Your task to perform on an android device: Open Maps and search for coffee Image 0: 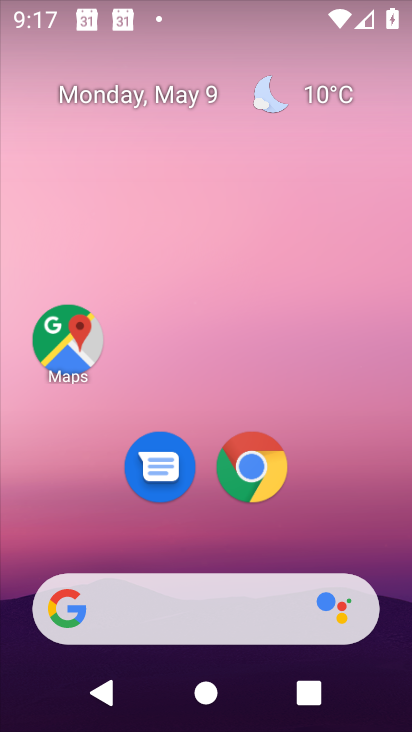
Step 0: click (65, 347)
Your task to perform on an android device: Open Maps and search for coffee Image 1: 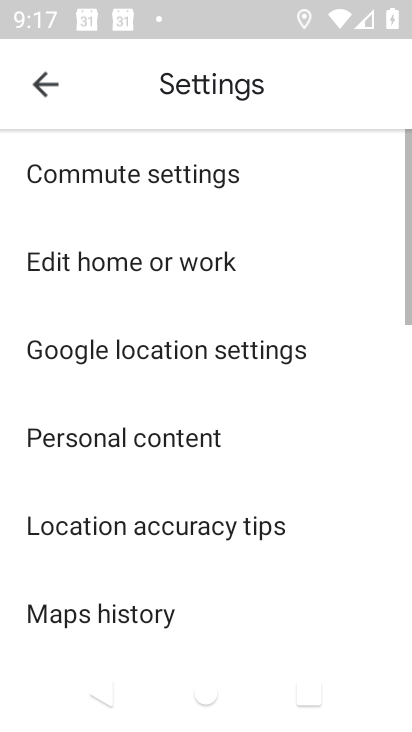
Step 1: click (55, 82)
Your task to perform on an android device: Open Maps and search for coffee Image 2: 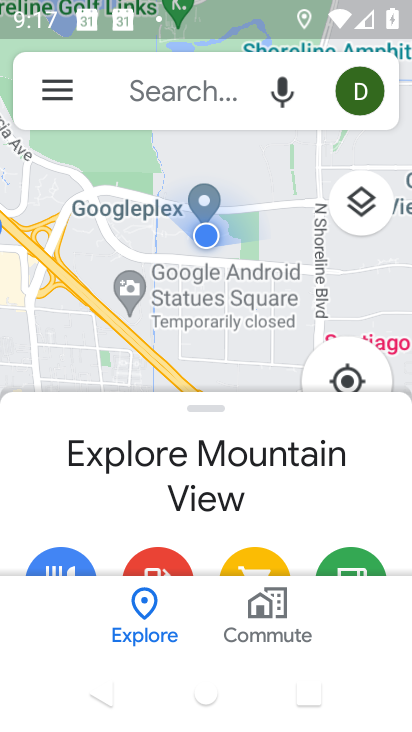
Step 2: click (156, 88)
Your task to perform on an android device: Open Maps and search for coffee Image 3: 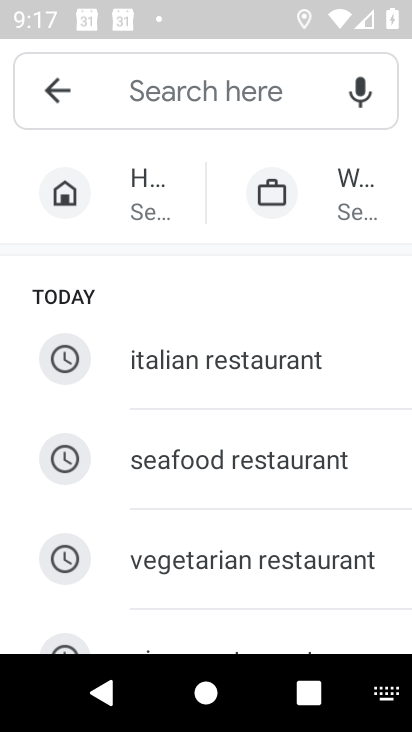
Step 3: click (156, 95)
Your task to perform on an android device: Open Maps and search for coffee Image 4: 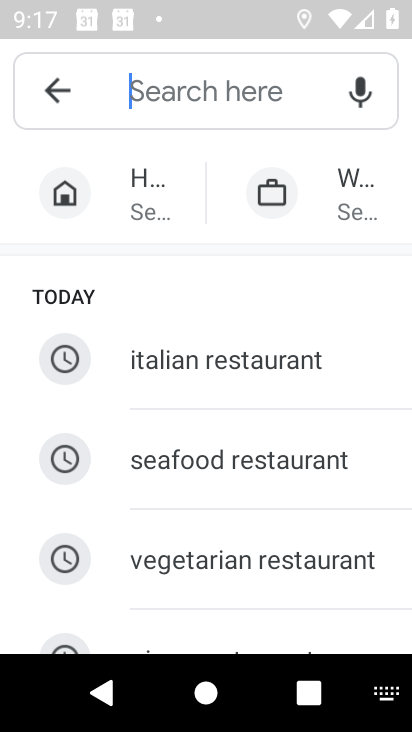
Step 4: type "coffee"
Your task to perform on an android device: Open Maps and search for coffee Image 5: 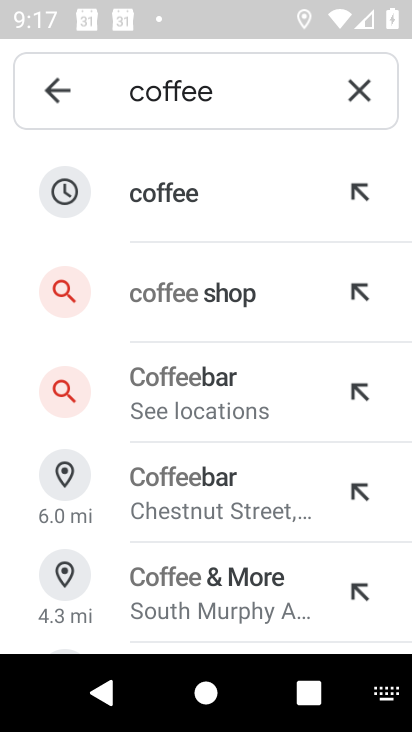
Step 5: click (191, 205)
Your task to perform on an android device: Open Maps and search for coffee Image 6: 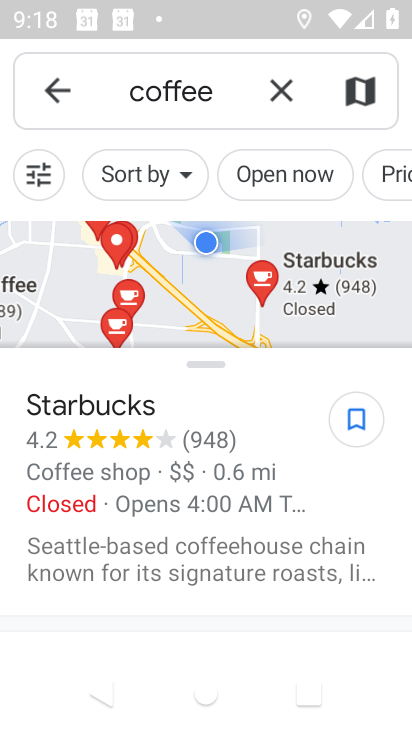
Step 6: task complete